Your task to perform on an android device: What's on my calendar tomorrow? Image 0: 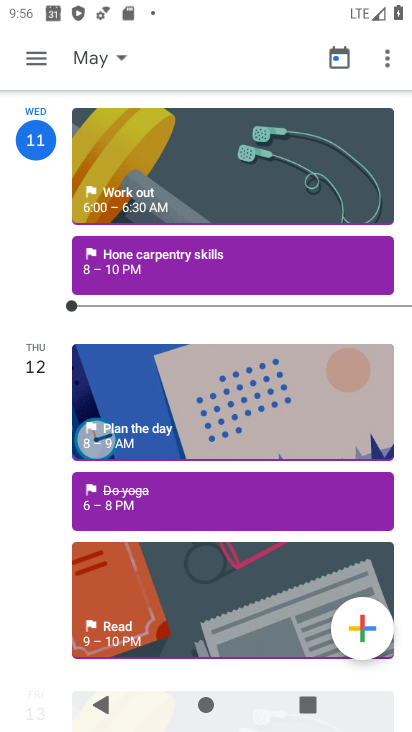
Step 0: drag from (204, 353) to (161, 17)
Your task to perform on an android device: What's on my calendar tomorrow? Image 1: 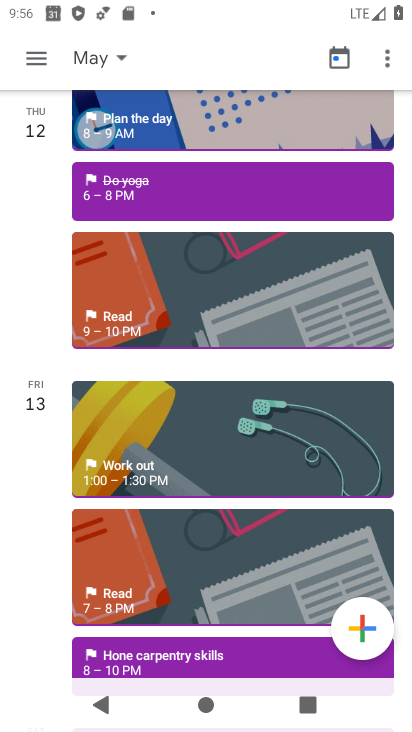
Step 1: task complete